Your task to perform on an android device: Open calendar and show me the fourth week of next month Image 0: 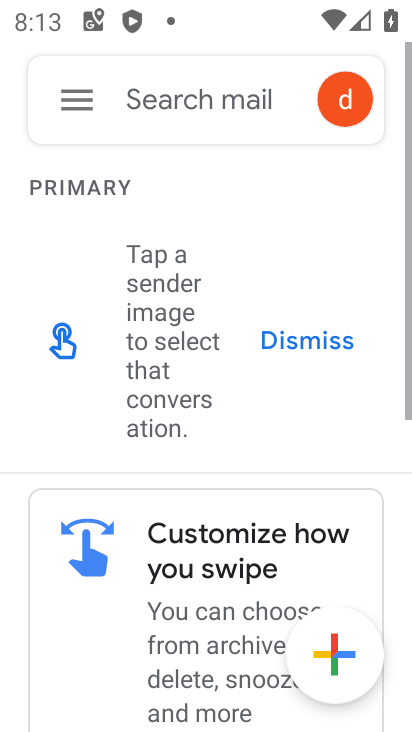
Step 0: press home button
Your task to perform on an android device: Open calendar and show me the fourth week of next month Image 1: 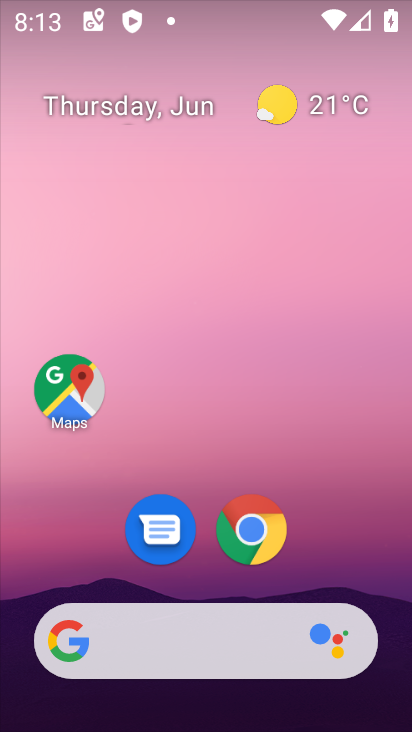
Step 1: drag from (318, 557) to (225, 166)
Your task to perform on an android device: Open calendar and show me the fourth week of next month Image 2: 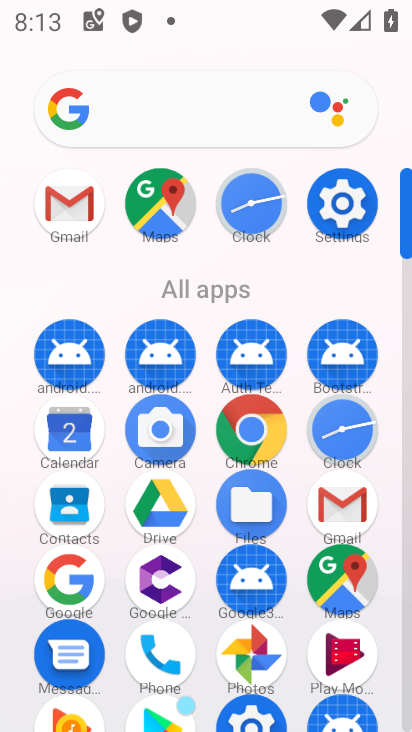
Step 2: click (63, 441)
Your task to perform on an android device: Open calendar and show me the fourth week of next month Image 3: 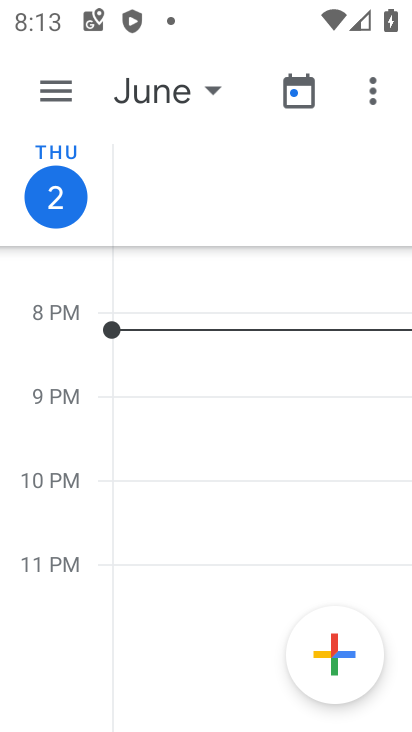
Step 3: click (60, 78)
Your task to perform on an android device: Open calendar and show me the fourth week of next month Image 4: 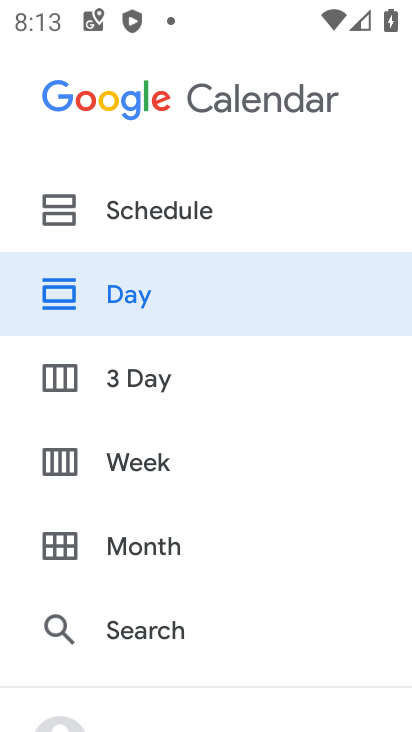
Step 4: click (127, 465)
Your task to perform on an android device: Open calendar and show me the fourth week of next month Image 5: 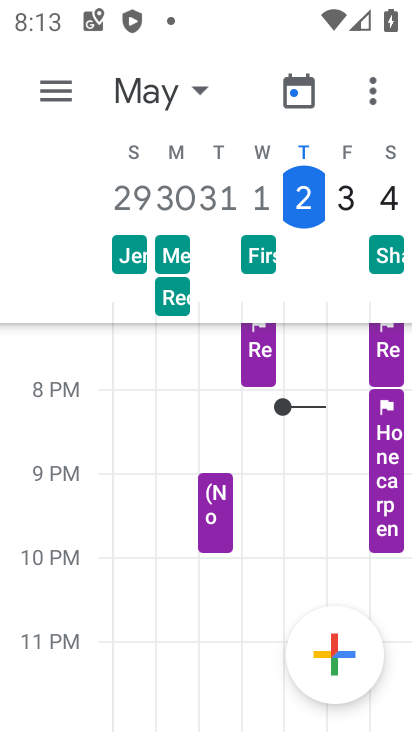
Step 5: click (205, 91)
Your task to perform on an android device: Open calendar and show me the fourth week of next month Image 6: 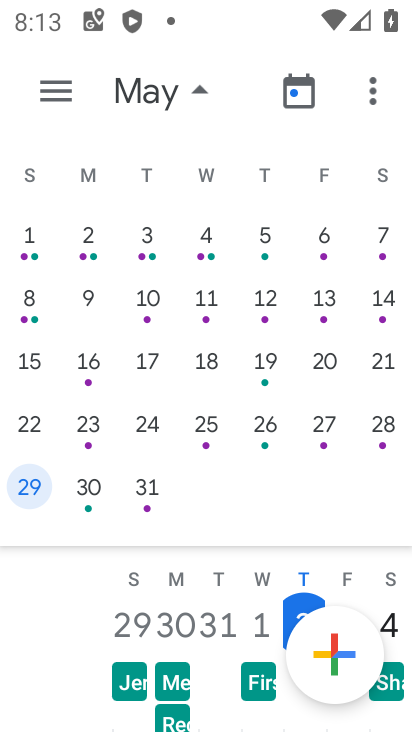
Step 6: drag from (329, 301) to (6, 234)
Your task to perform on an android device: Open calendar and show me the fourth week of next month Image 7: 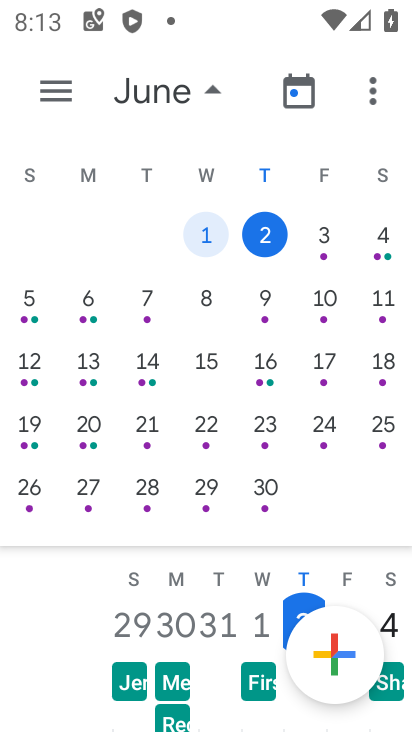
Step 7: drag from (361, 361) to (13, 341)
Your task to perform on an android device: Open calendar and show me the fourth week of next month Image 8: 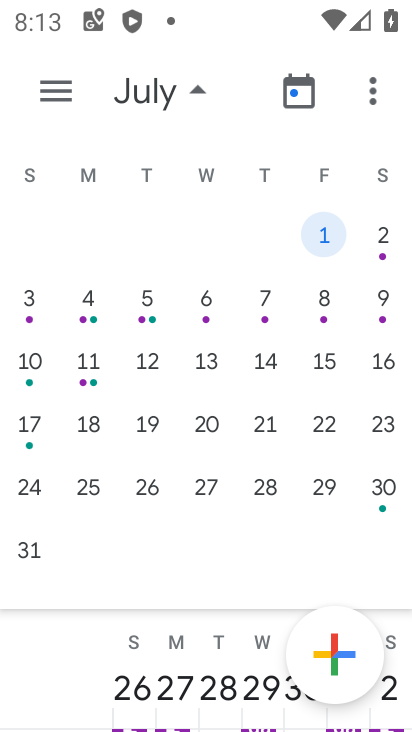
Step 8: click (147, 428)
Your task to perform on an android device: Open calendar and show me the fourth week of next month Image 9: 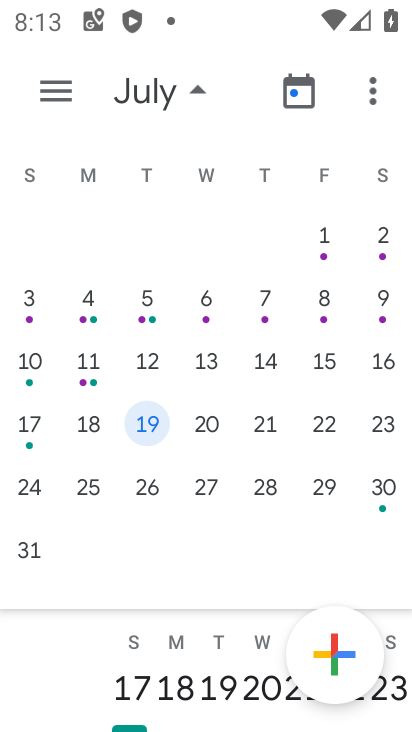
Step 9: task complete